Your task to perform on an android device: set an alarm Image 0: 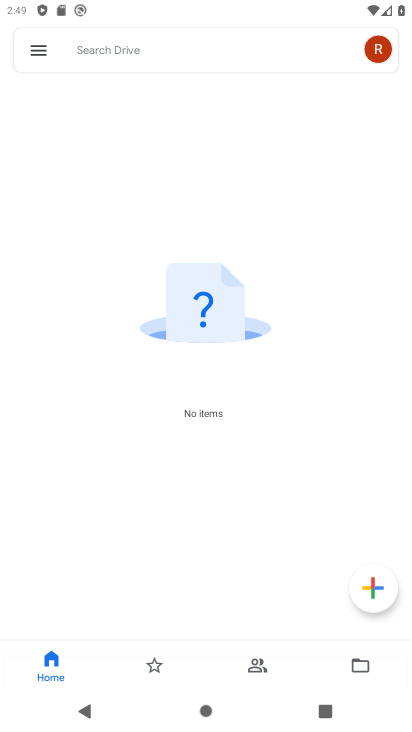
Step 0: press home button
Your task to perform on an android device: set an alarm Image 1: 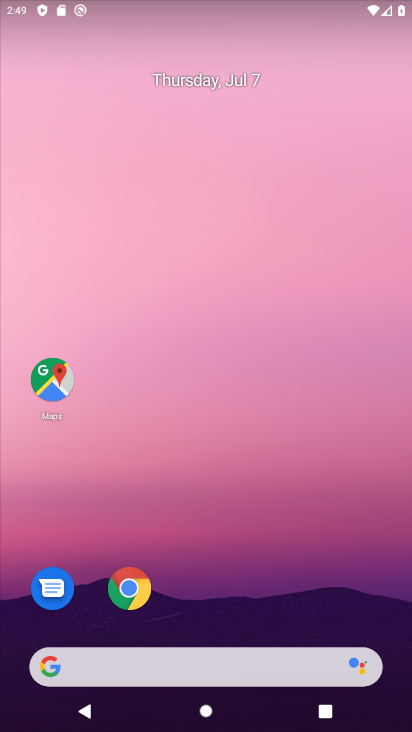
Step 1: drag from (216, 588) to (218, 160)
Your task to perform on an android device: set an alarm Image 2: 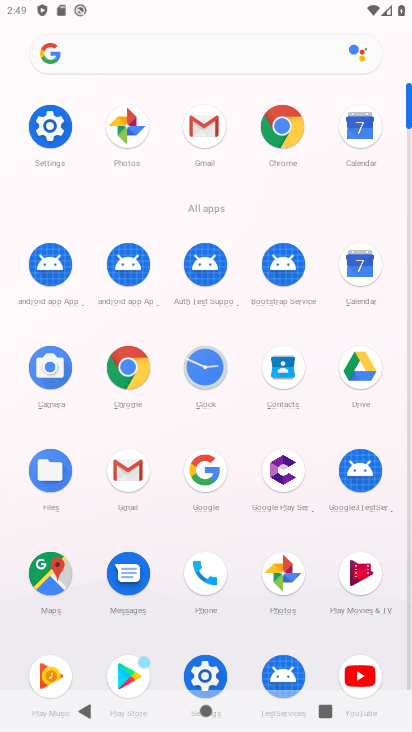
Step 2: click (206, 372)
Your task to perform on an android device: set an alarm Image 3: 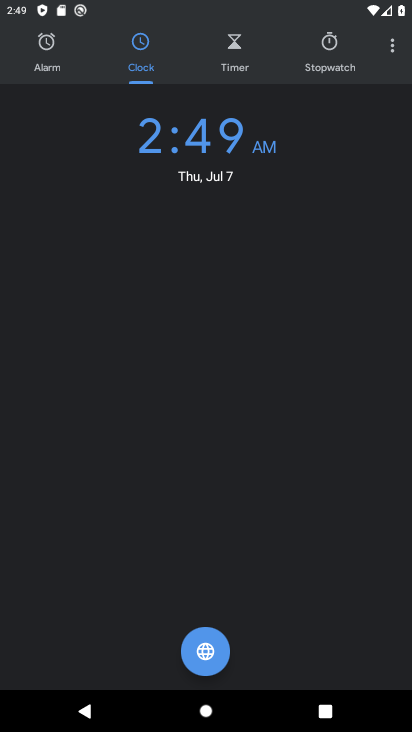
Step 3: click (55, 51)
Your task to perform on an android device: set an alarm Image 4: 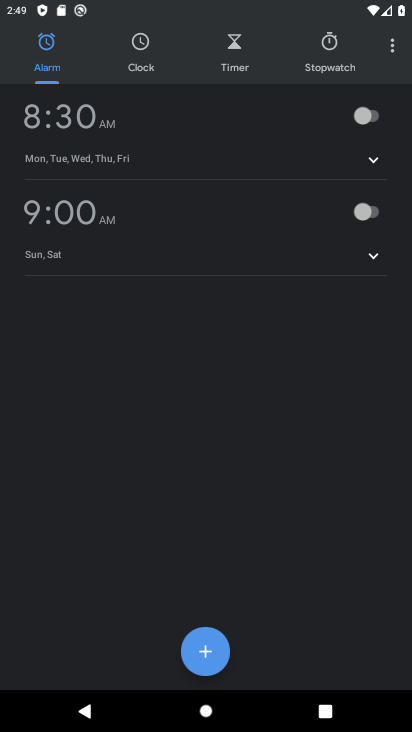
Step 4: click (218, 648)
Your task to perform on an android device: set an alarm Image 5: 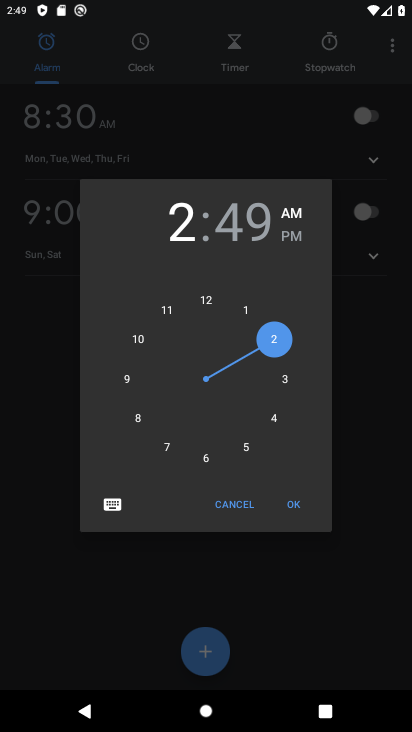
Step 5: click (210, 455)
Your task to perform on an android device: set an alarm Image 6: 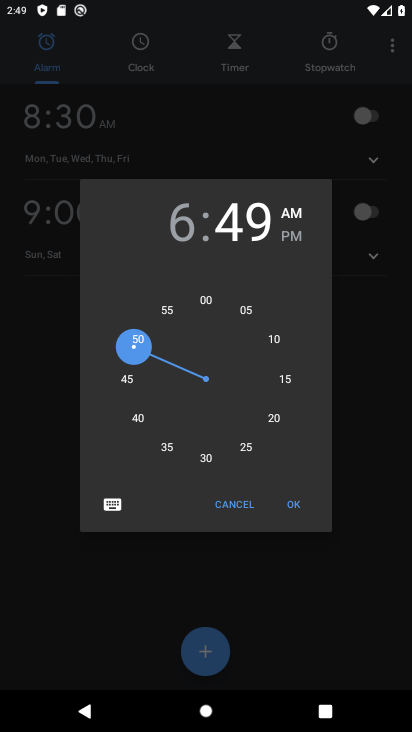
Step 6: click (206, 301)
Your task to perform on an android device: set an alarm Image 7: 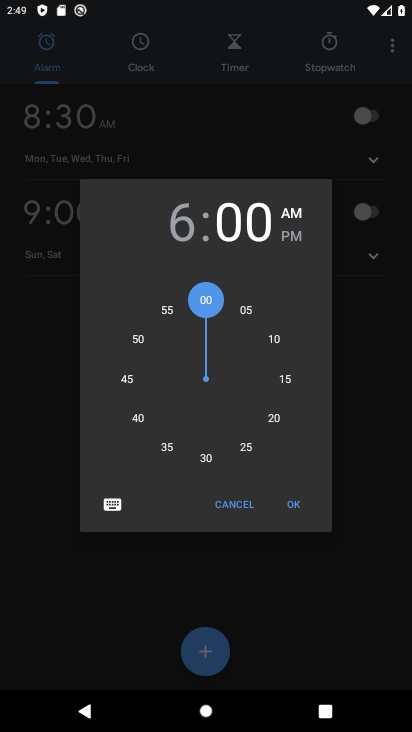
Step 7: click (298, 236)
Your task to perform on an android device: set an alarm Image 8: 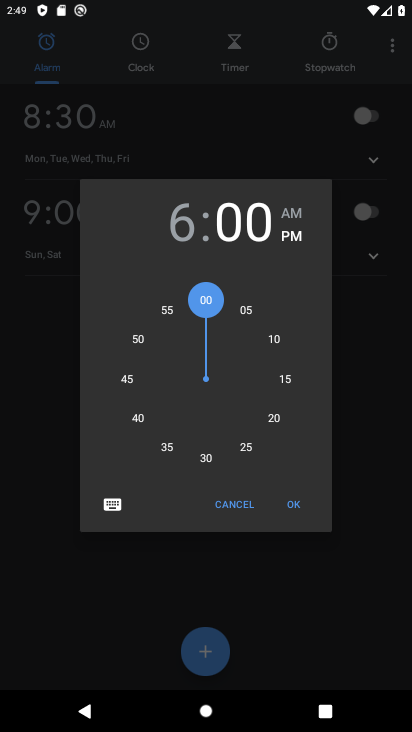
Step 8: click (297, 509)
Your task to perform on an android device: set an alarm Image 9: 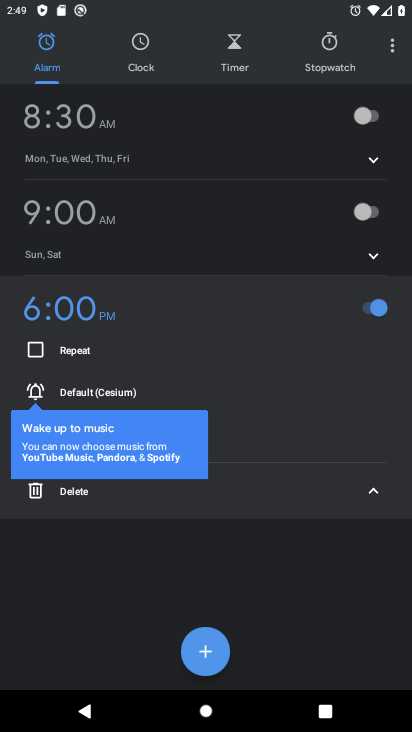
Step 9: task complete